Your task to perform on an android device: Open the calendar app, open the side menu, and click the "Day" option Image 0: 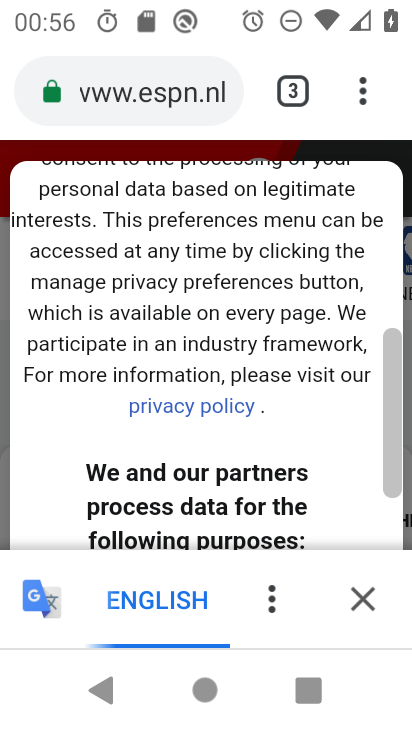
Step 0: press home button
Your task to perform on an android device: Open the calendar app, open the side menu, and click the "Day" option Image 1: 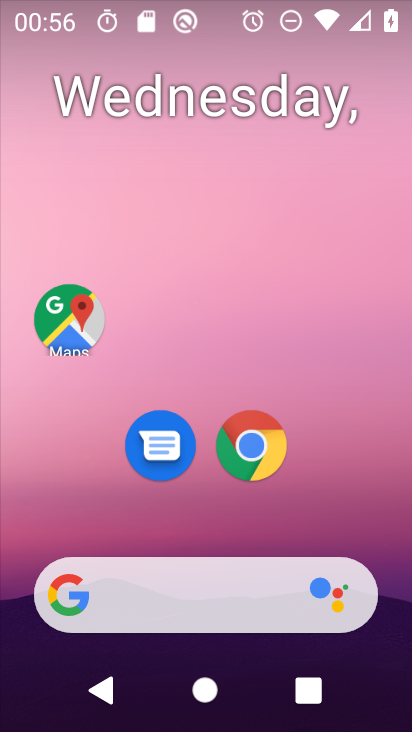
Step 1: drag from (315, 498) to (227, 0)
Your task to perform on an android device: Open the calendar app, open the side menu, and click the "Day" option Image 2: 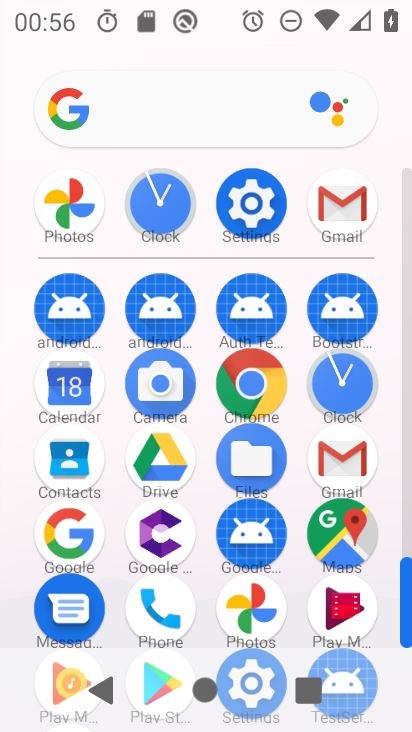
Step 2: click (47, 389)
Your task to perform on an android device: Open the calendar app, open the side menu, and click the "Day" option Image 3: 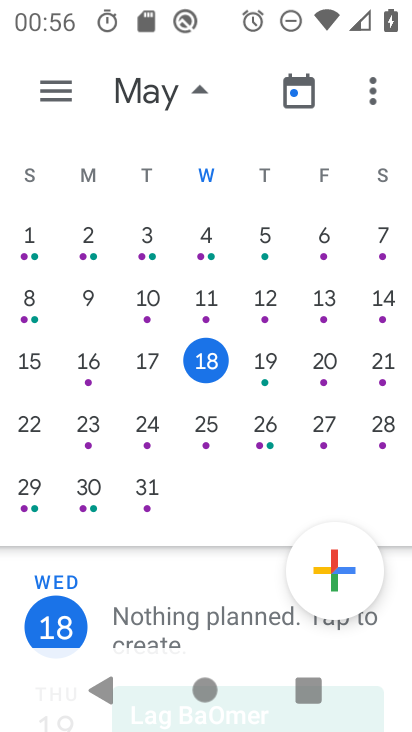
Step 3: click (67, 90)
Your task to perform on an android device: Open the calendar app, open the side menu, and click the "Day" option Image 4: 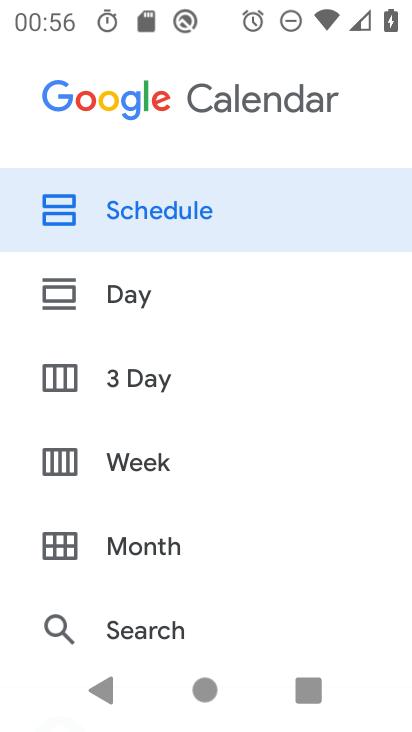
Step 4: click (128, 289)
Your task to perform on an android device: Open the calendar app, open the side menu, and click the "Day" option Image 5: 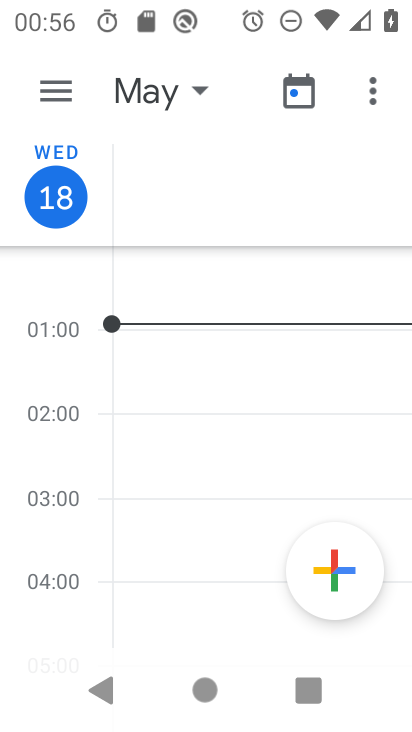
Step 5: task complete